Your task to perform on an android device: turn on translation in the chrome app Image 0: 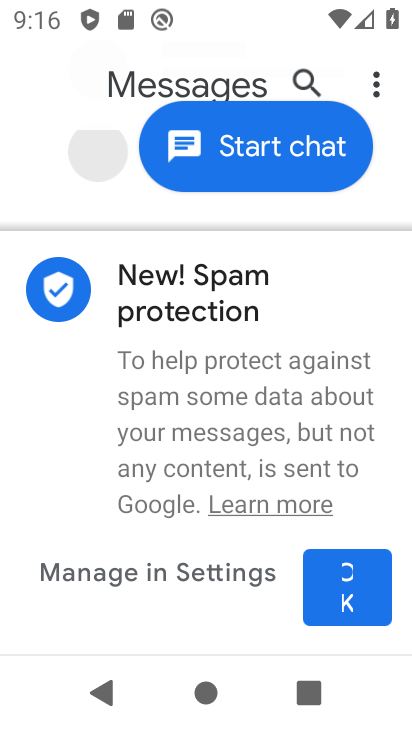
Step 0: press home button
Your task to perform on an android device: turn on translation in the chrome app Image 1: 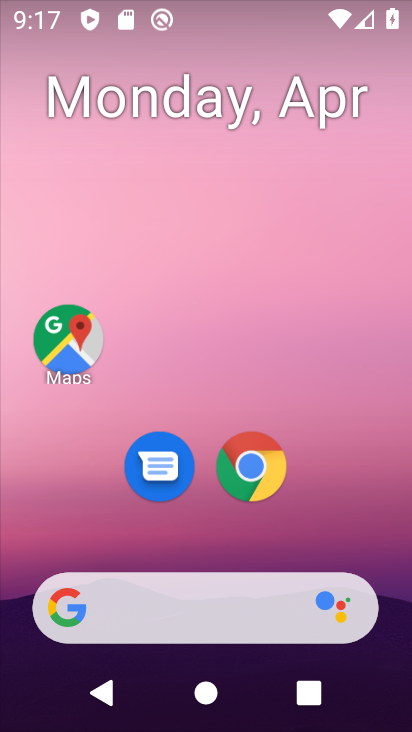
Step 1: click (253, 470)
Your task to perform on an android device: turn on translation in the chrome app Image 2: 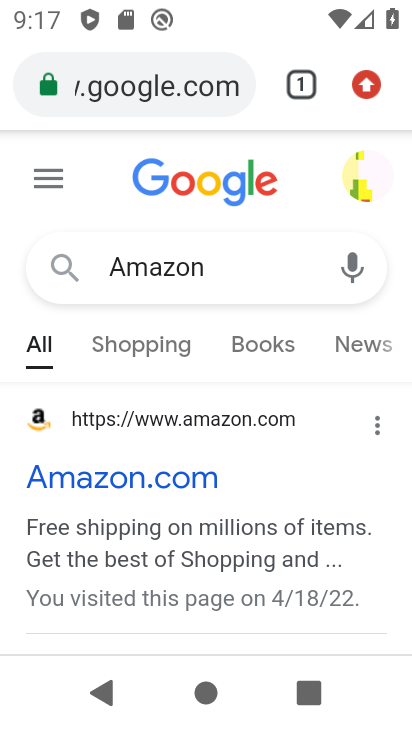
Step 2: click (373, 90)
Your task to perform on an android device: turn on translation in the chrome app Image 3: 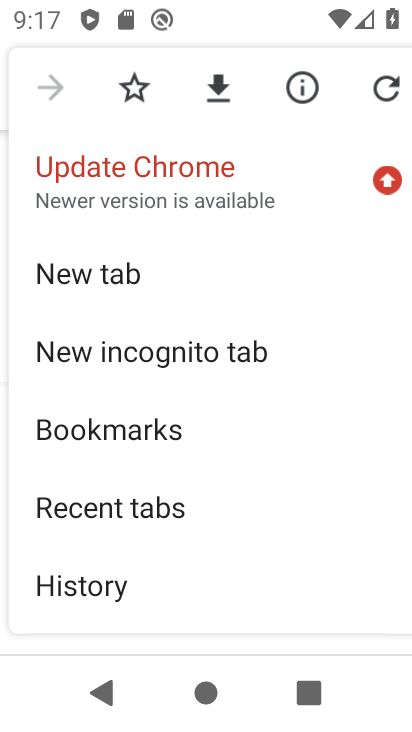
Step 3: drag from (180, 591) to (208, 407)
Your task to perform on an android device: turn on translation in the chrome app Image 4: 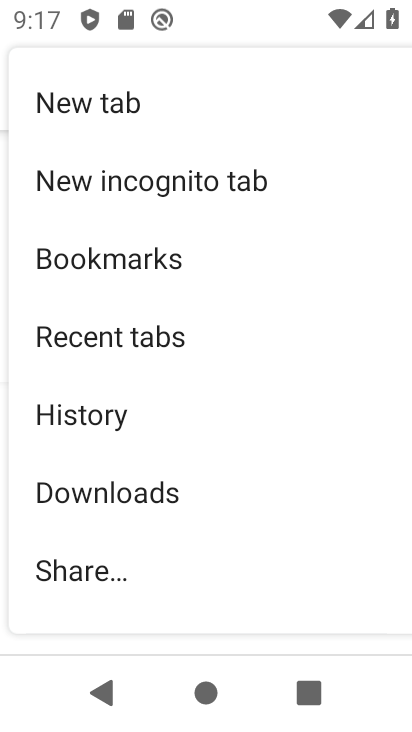
Step 4: drag from (234, 540) to (223, 404)
Your task to perform on an android device: turn on translation in the chrome app Image 5: 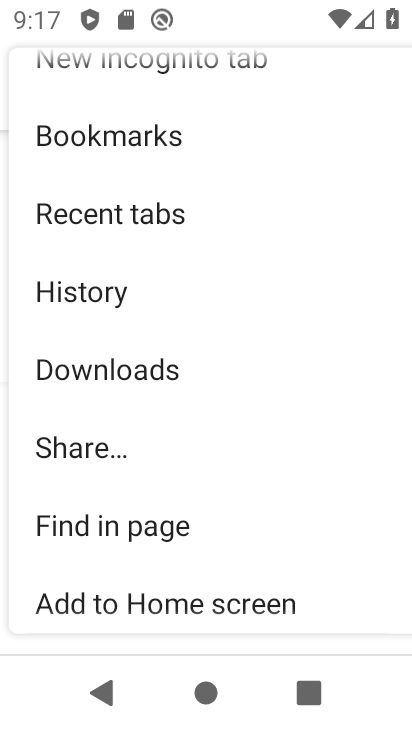
Step 5: drag from (234, 491) to (237, 360)
Your task to perform on an android device: turn on translation in the chrome app Image 6: 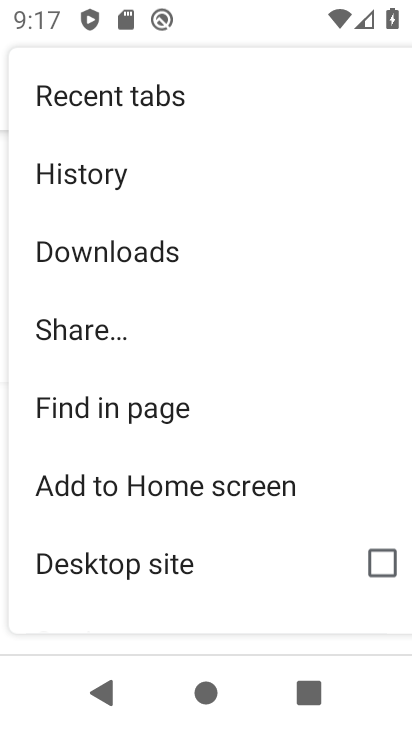
Step 6: drag from (249, 505) to (260, 403)
Your task to perform on an android device: turn on translation in the chrome app Image 7: 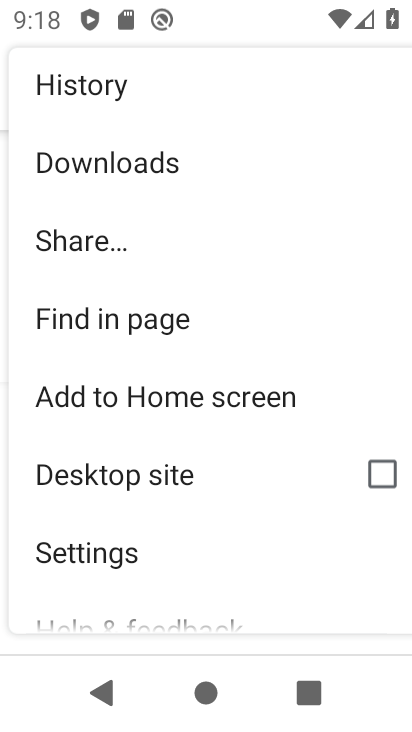
Step 7: click (127, 563)
Your task to perform on an android device: turn on translation in the chrome app Image 8: 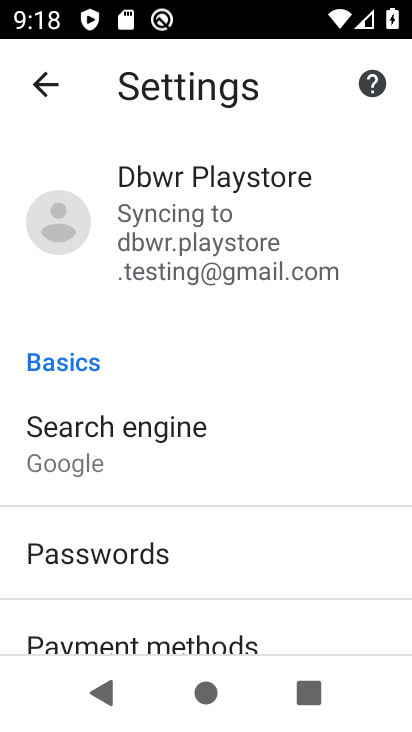
Step 8: drag from (204, 620) to (255, 393)
Your task to perform on an android device: turn on translation in the chrome app Image 9: 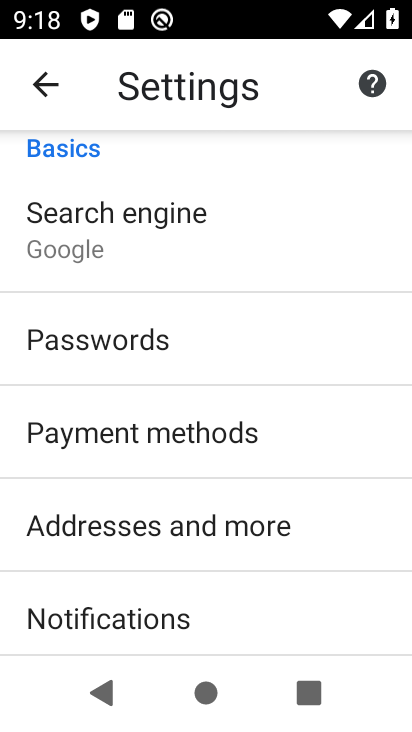
Step 9: drag from (221, 527) to (273, 397)
Your task to perform on an android device: turn on translation in the chrome app Image 10: 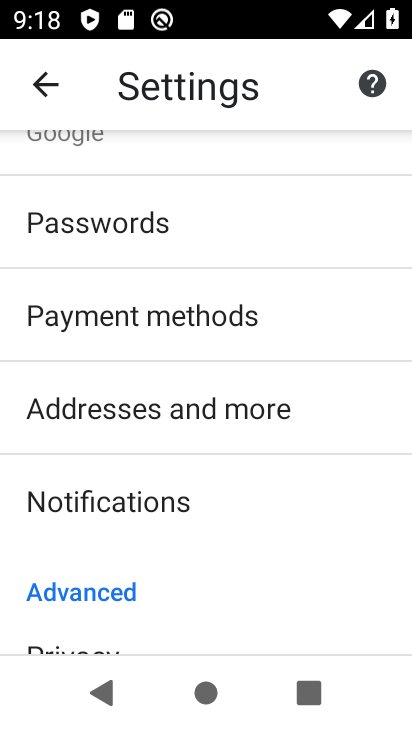
Step 10: drag from (237, 531) to (284, 417)
Your task to perform on an android device: turn on translation in the chrome app Image 11: 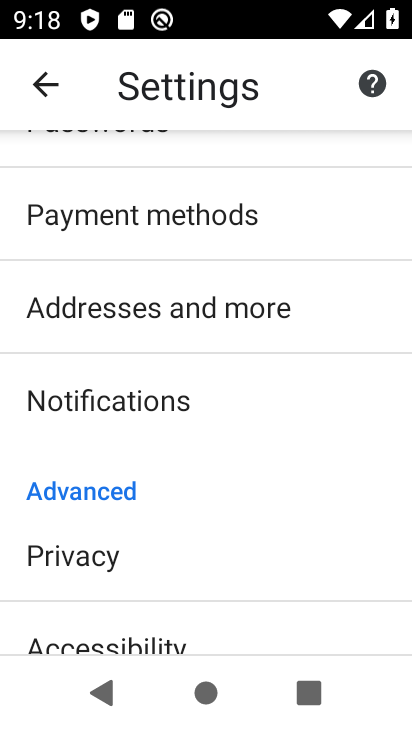
Step 11: drag from (216, 570) to (233, 502)
Your task to perform on an android device: turn on translation in the chrome app Image 12: 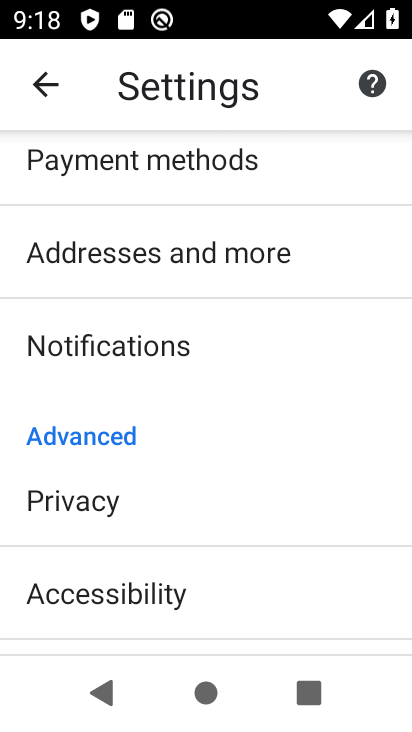
Step 12: drag from (191, 558) to (211, 454)
Your task to perform on an android device: turn on translation in the chrome app Image 13: 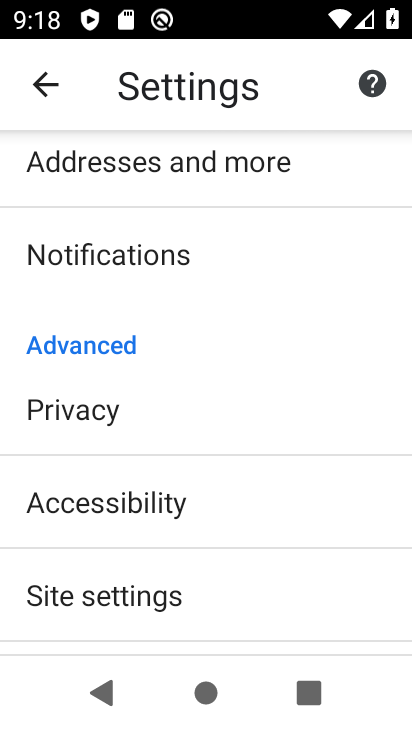
Step 13: drag from (208, 505) to (235, 425)
Your task to perform on an android device: turn on translation in the chrome app Image 14: 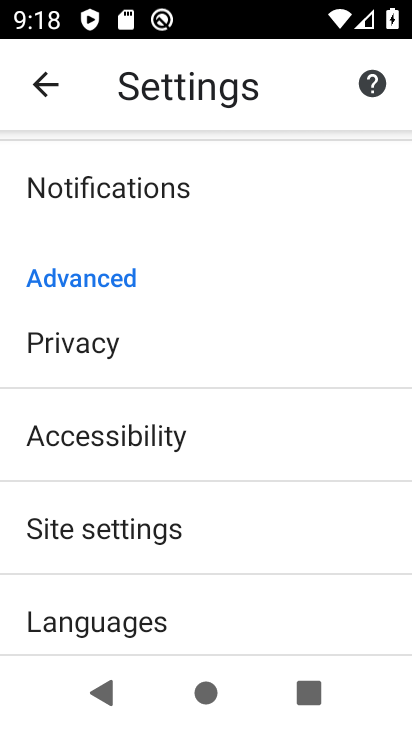
Step 14: click (128, 612)
Your task to perform on an android device: turn on translation in the chrome app Image 15: 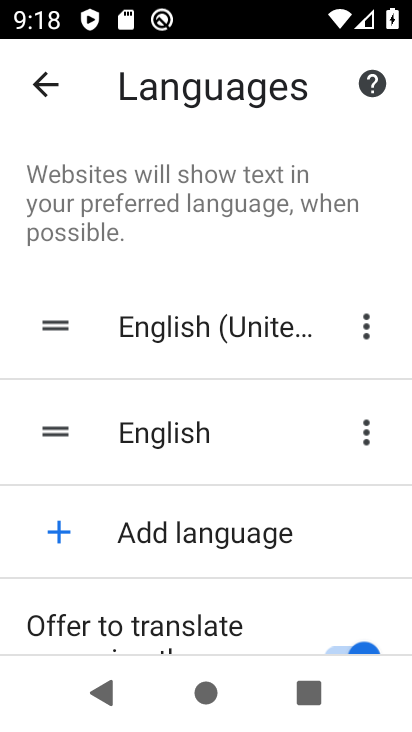
Step 15: task complete